Your task to perform on an android device: turn on translation in the chrome app Image 0: 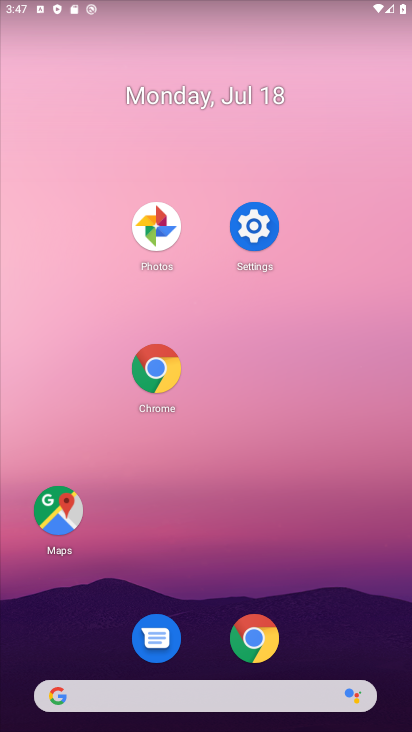
Step 0: click (164, 356)
Your task to perform on an android device: turn on translation in the chrome app Image 1: 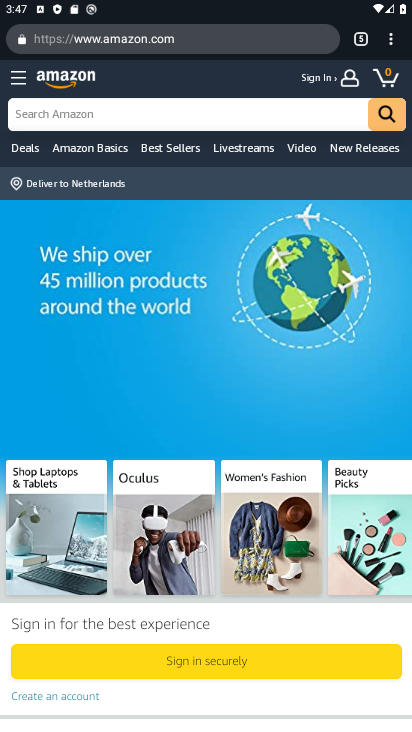
Step 1: click (394, 38)
Your task to perform on an android device: turn on translation in the chrome app Image 2: 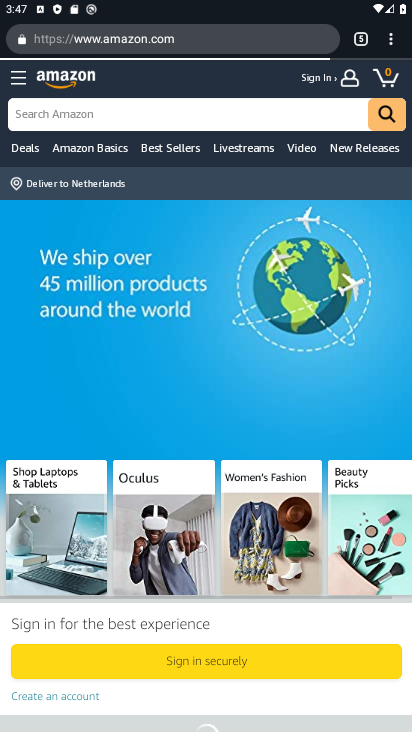
Step 2: click (389, 47)
Your task to perform on an android device: turn on translation in the chrome app Image 3: 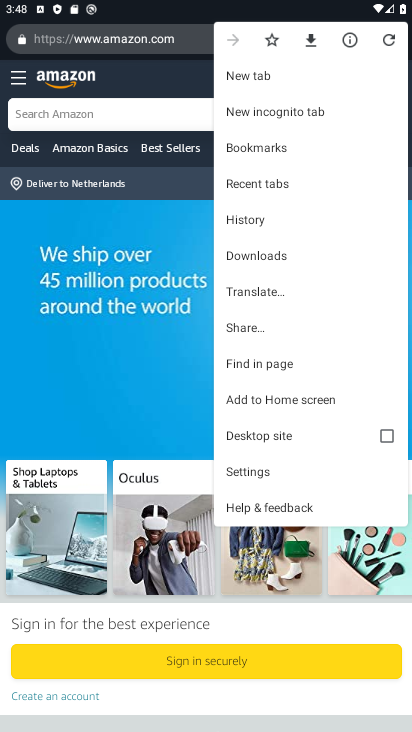
Step 3: click (273, 472)
Your task to perform on an android device: turn on translation in the chrome app Image 4: 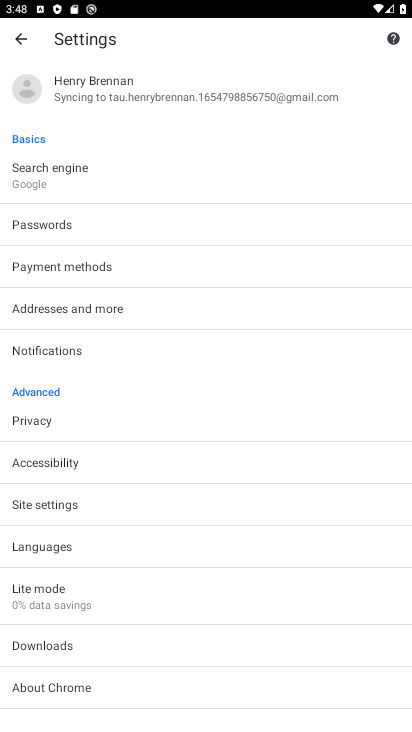
Step 4: click (142, 545)
Your task to perform on an android device: turn on translation in the chrome app Image 5: 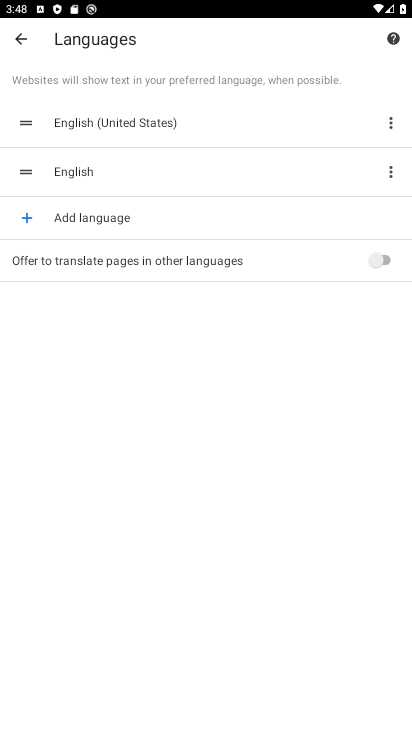
Step 5: click (375, 257)
Your task to perform on an android device: turn on translation in the chrome app Image 6: 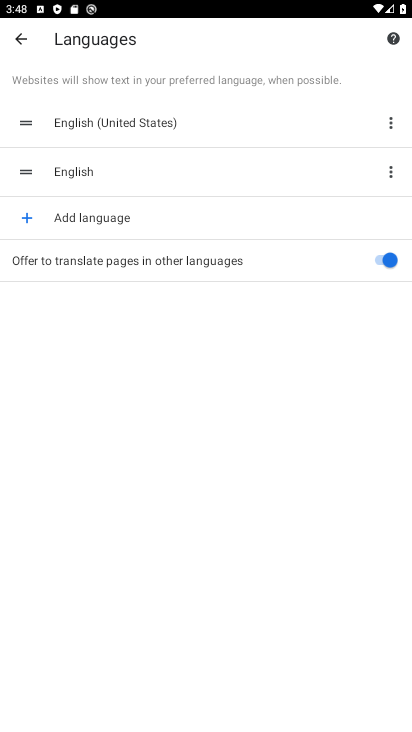
Step 6: task complete